Your task to perform on an android device: toggle show notifications on the lock screen Image 0: 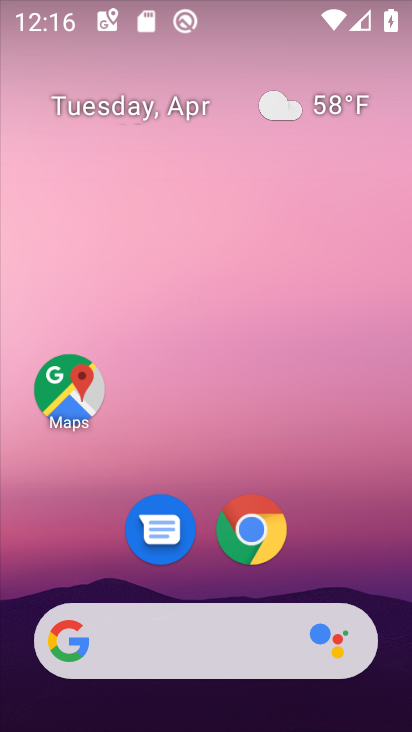
Step 0: drag from (148, 590) to (260, 44)
Your task to perform on an android device: toggle show notifications on the lock screen Image 1: 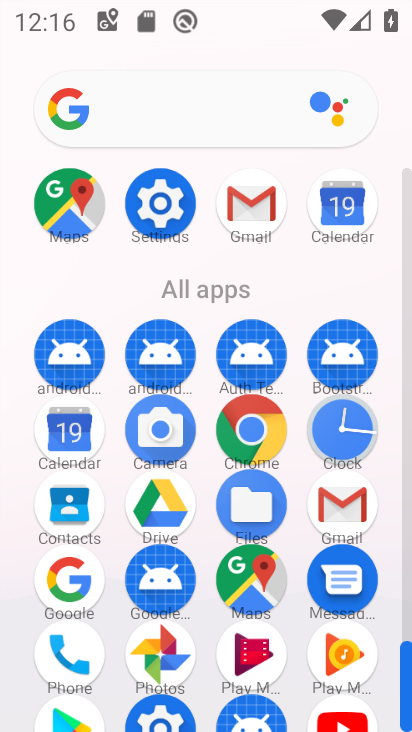
Step 1: drag from (174, 654) to (244, 356)
Your task to perform on an android device: toggle show notifications on the lock screen Image 2: 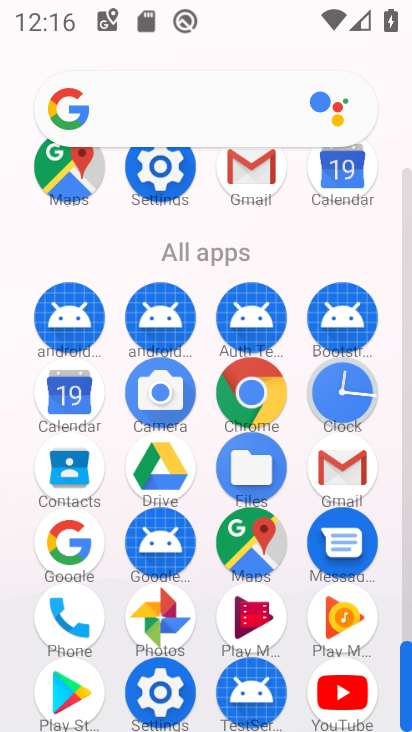
Step 2: click (164, 684)
Your task to perform on an android device: toggle show notifications on the lock screen Image 3: 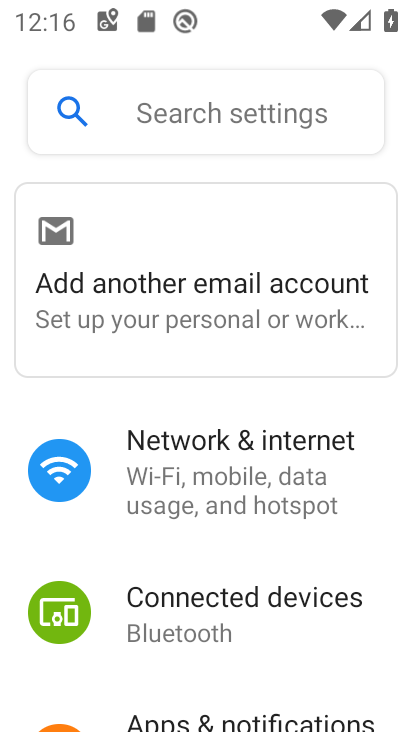
Step 3: drag from (211, 581) to (303, 181)
Your task to perform on an android device: toggle show notifications on the lock screen Image 4: 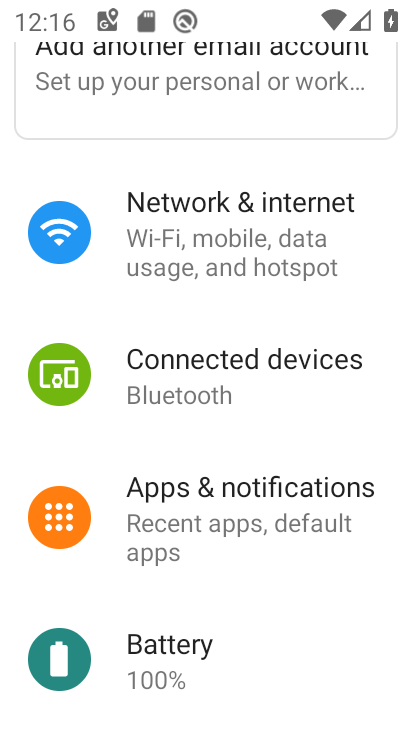
Step 4: click (275, 519)
Your task to perform on an android device: toggle show notifications on the lock screen Image 5: 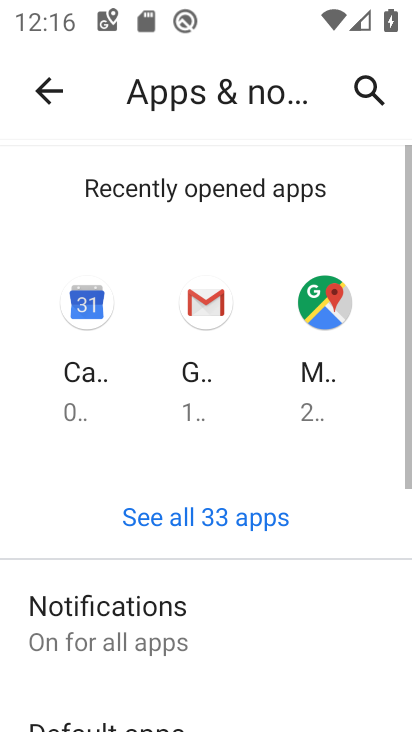
Step 5: drag from (191, 668) to (300, 363)
Your task to perform on an android device: toggle show notifications on the lock screen Image 6: 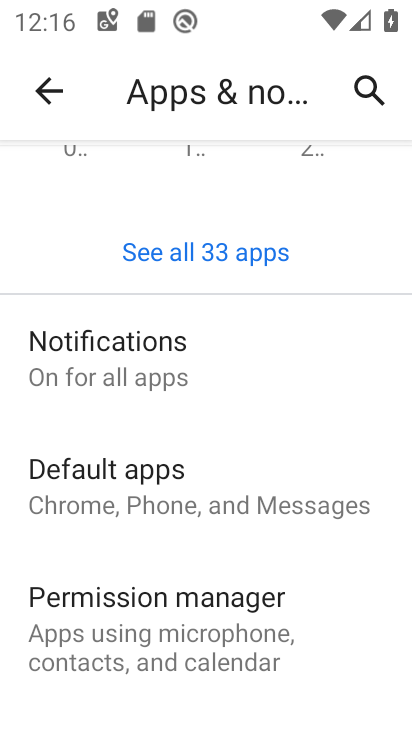
Step 6: click (271, 366)
Your task to perform on an android device: toggle show notifications on the lock screen Image 7: 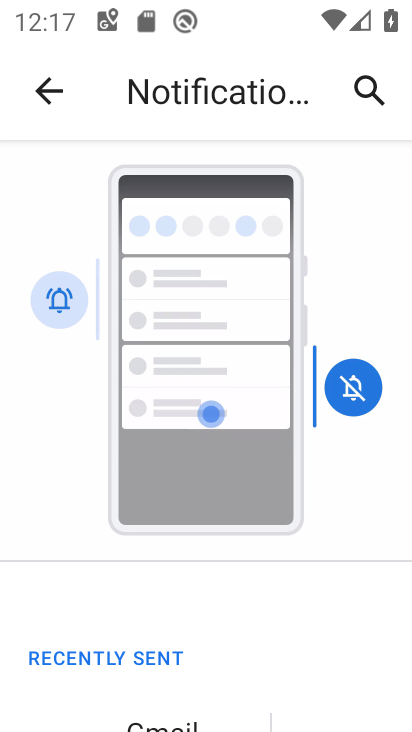
Step 7: drag from (210, 716) to (395, 237)
Your task to perform on an android device: toggle show notifications on the lock screen Image 8: 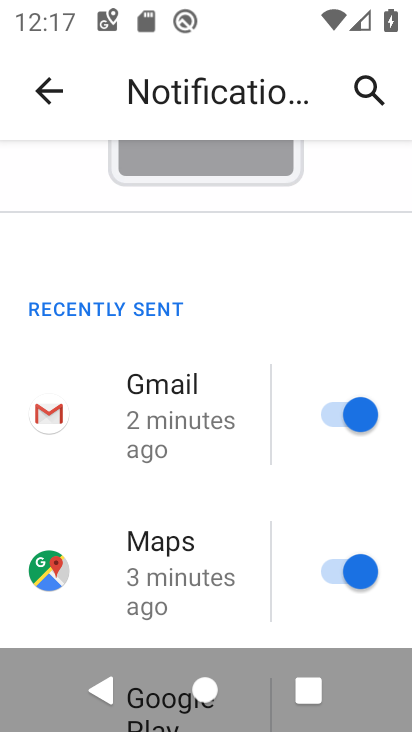
Step 8: drag from (240, 596) to (364, 145)
Your task to perform on an android device: toggle show notifications on the lock screen Image 9: 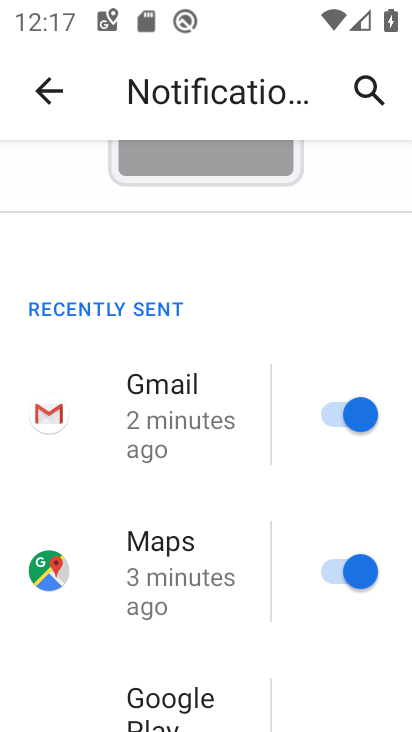
Step 9: drag from (195, 632) to (335, 141)
Your task to perform on an android device: toggle show notifications on the lock screen Image 10: 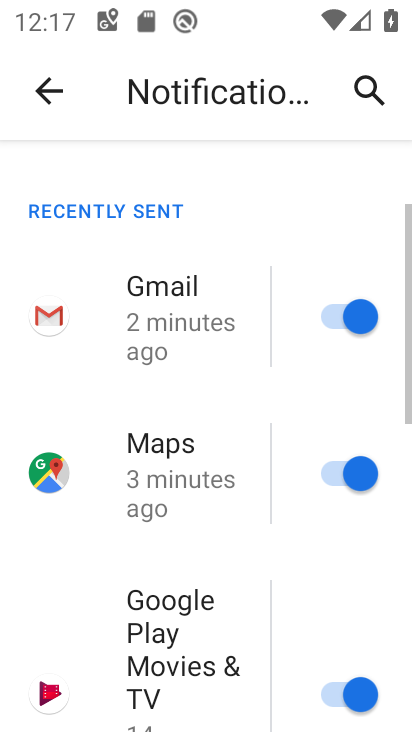
Step 10: drag from (257, 611) to (319, 240)
Your task to perform on an android device: toggle show notifications on the lock screen Image 11: 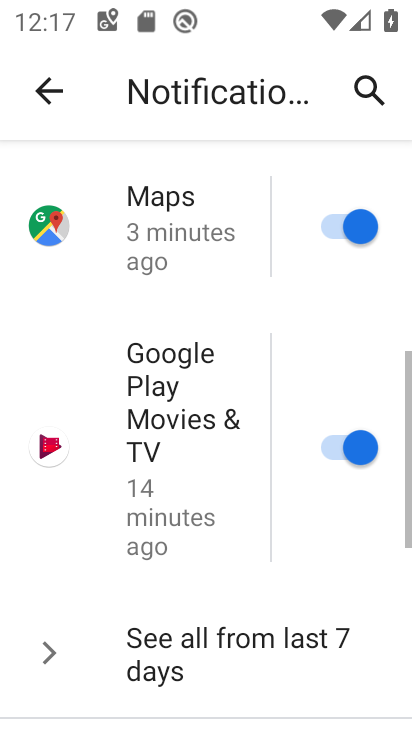
Step 11: drag from (212, 633) to (300, 320)
Your task to perform on an android device: toggle show notifications on the lock screen Image 12: 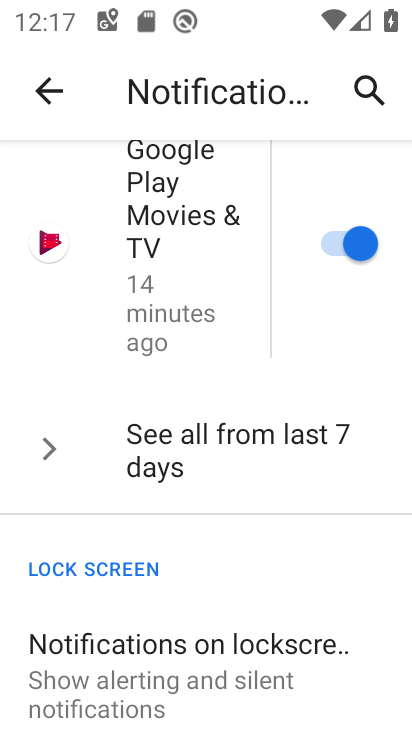
Step 12: drag from (167, 656) to (247, 366)
Your task to perform on an android device: toggle show notifications on the lock screen Image 13: 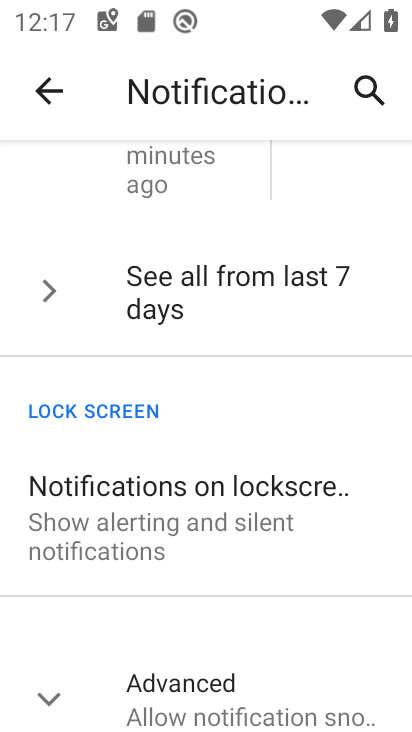
Step 13: click (252, 539)
Your task to perform on an android device: toggle show notifications on the lock screen Image 14: 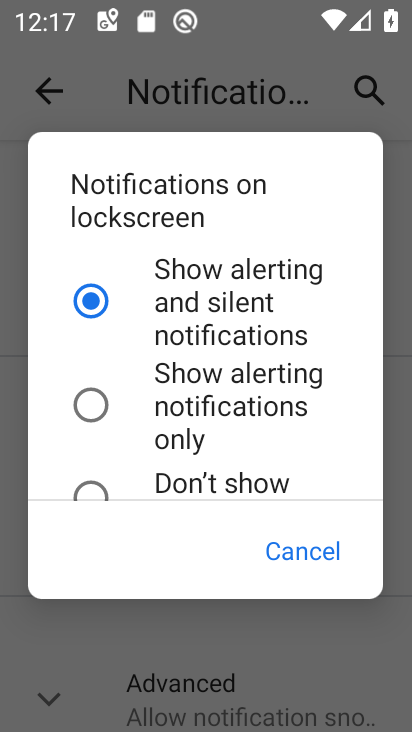
Step 14: click (84, 487)
Your task to perform on an android device: toggle show notifications on the lock screen Image 15: 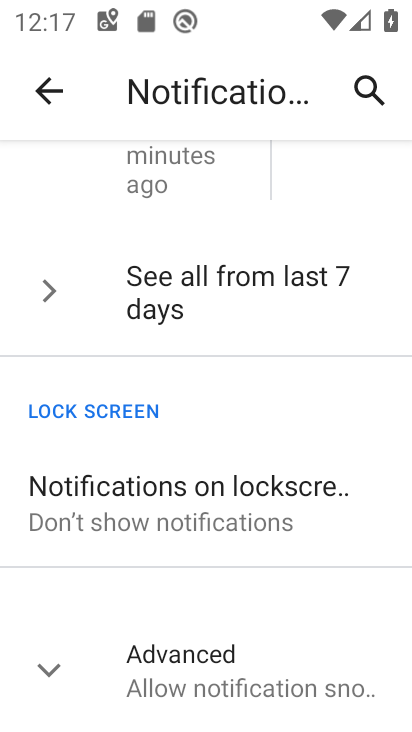
Step 15: task complete